Your task to perform on an android device: turn off notifications settings in the gmail app Image 0: 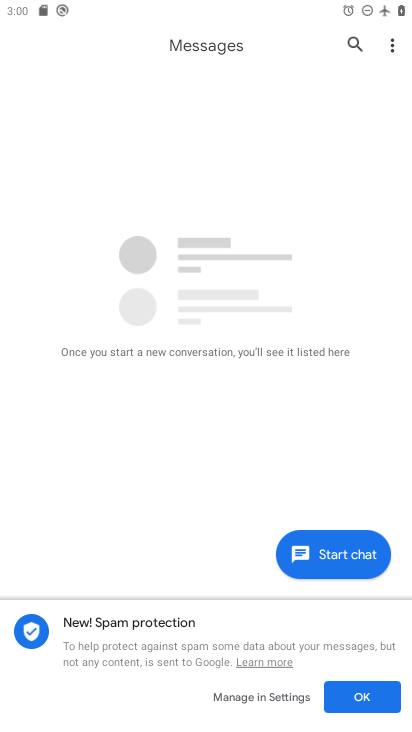
Step 0: press home button
Your task to perform on an android device: turn off notifications settings in the gmail app Image 1: 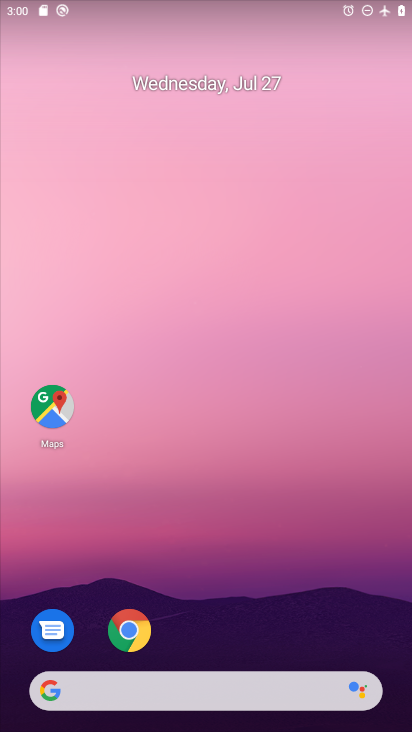
Step 1: drag from (386, 654) to (332, 220)
Your task to perform on an android device: turn off notifications settings in the gmail app Image 2: 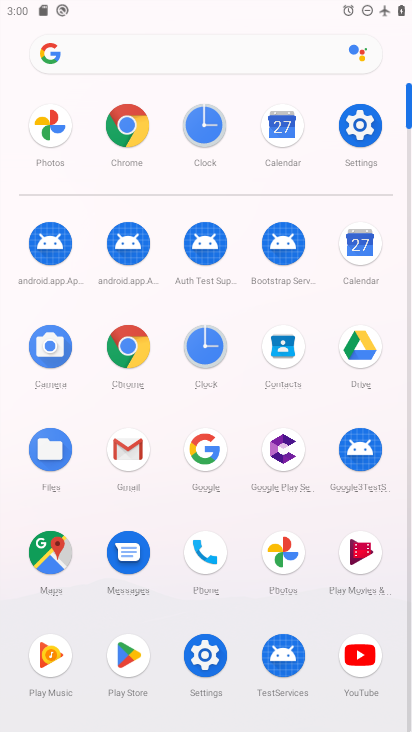
Step 2: click (130, 445)
Your task to perform on an android device: turn off notifications settings in the gmail app Image 3: 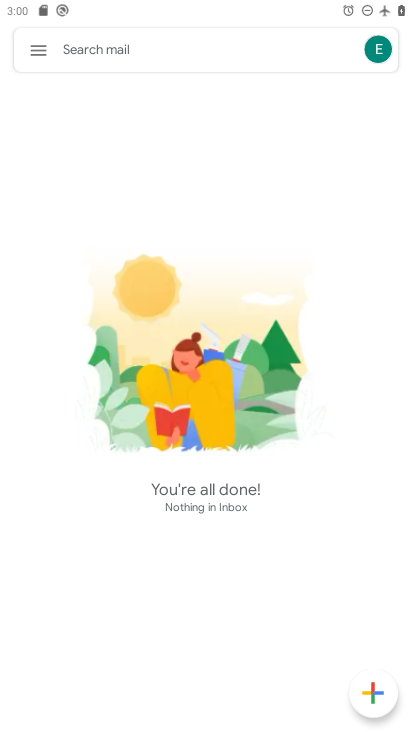
Step 3: click (38, 50)
Your task to perform on an android device: turn off notifications settings in the gmail app Image 4: 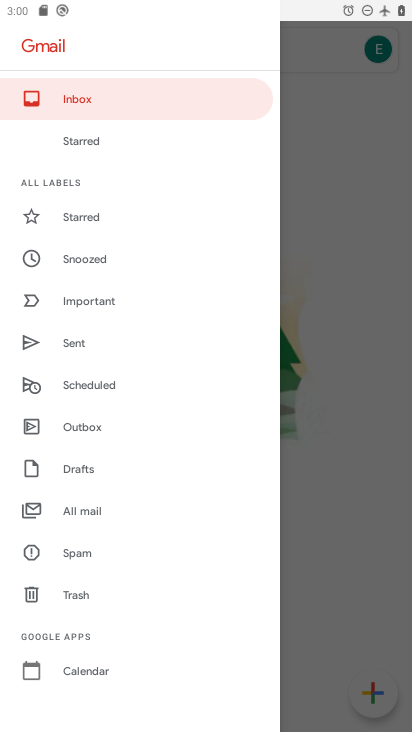
Step 4: drag from (128, 659) to (151, 123)
Your task to perform on an android device: turn off notifications settings in the gmail app Image 5: 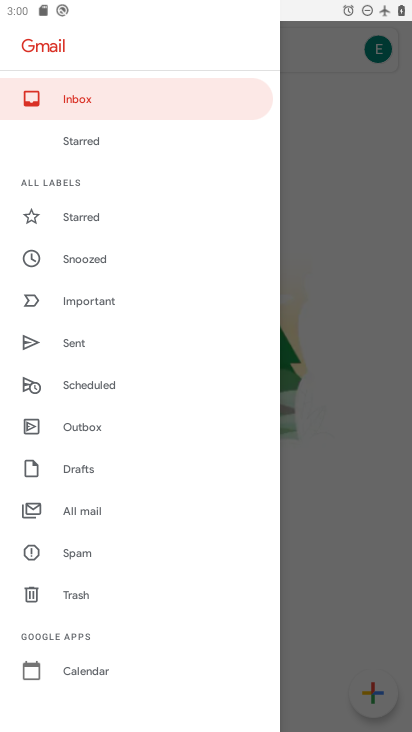
Step 5: drag from (170, 669) to (171, 278)
Your task to perform on an android device: turn off notifications settings in the gmail app Image 6: 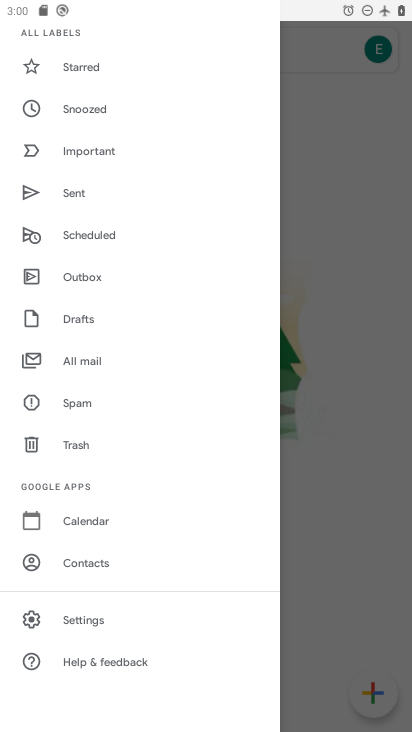
Step 6: click (81, 622)
Your task to perform on an android device: turn off notifications settings in the gmail app Image 7: 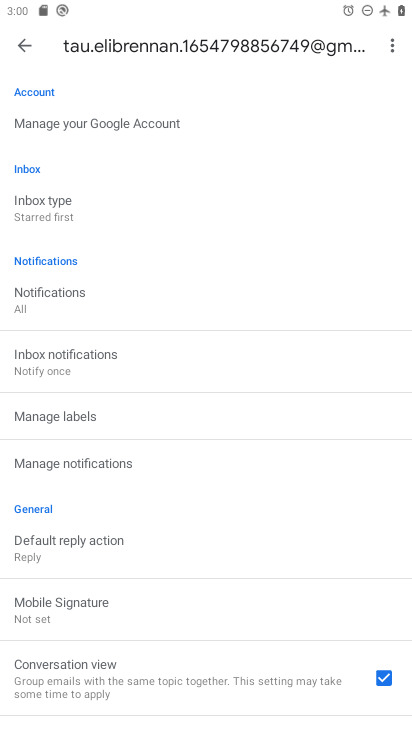
Step 7: click (84, 467)
Your task to perform on an android device: turn off notifications settings in the gmail app Image 8: 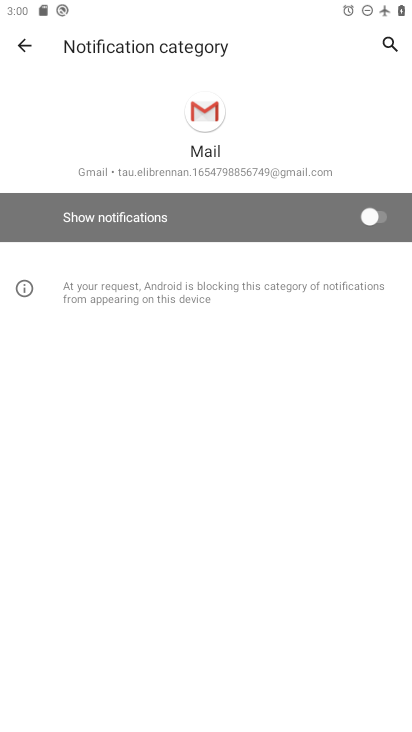
Step 8: task complete